Your task to perform on an android device: Open my contact list Image 0: 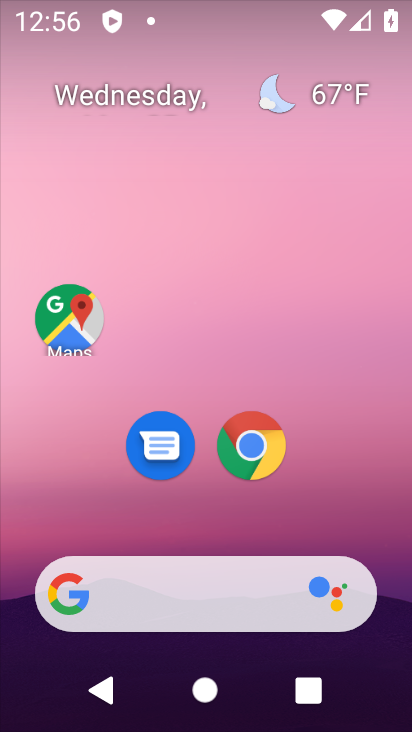
Step 0: drag from (401, 574) to (278, 152)
Your task to perform on an android device: Open my contact list Image 1: 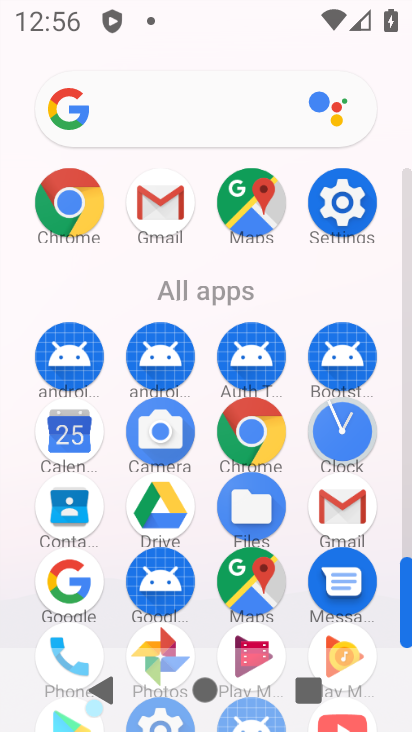
Step 1: click (72, 520)
Your task to perform on an android device: Open my contact list Image 2: 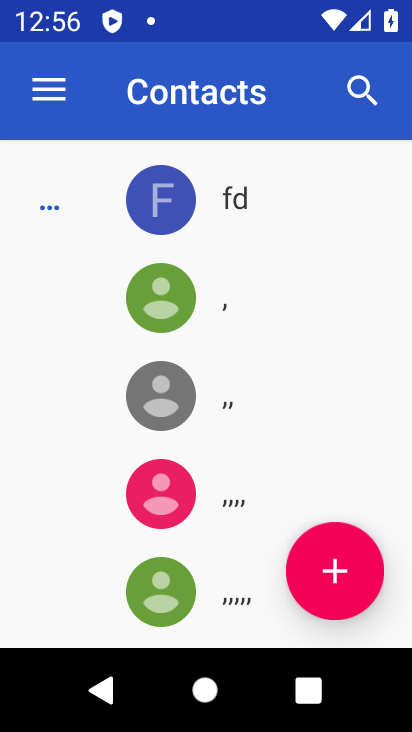
Step 2: task complete